Your task to perform on an android device: Open Google Chrome and open the bookmarks view Image 0: 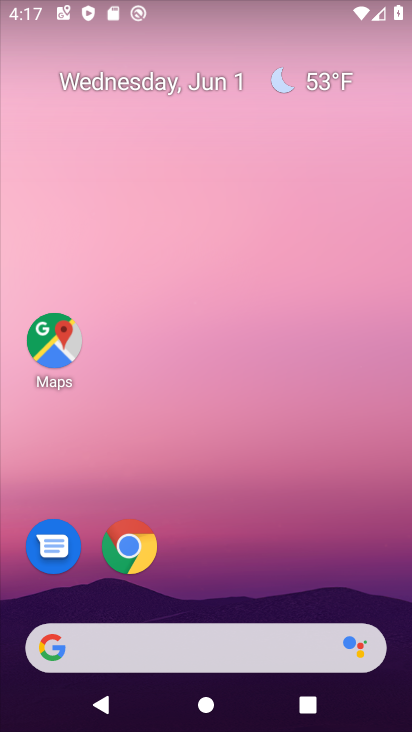
Step 0: click (125, 548)
Your task to perform on an android device: Open Google Chrome and open the bookmarks view Image 1: 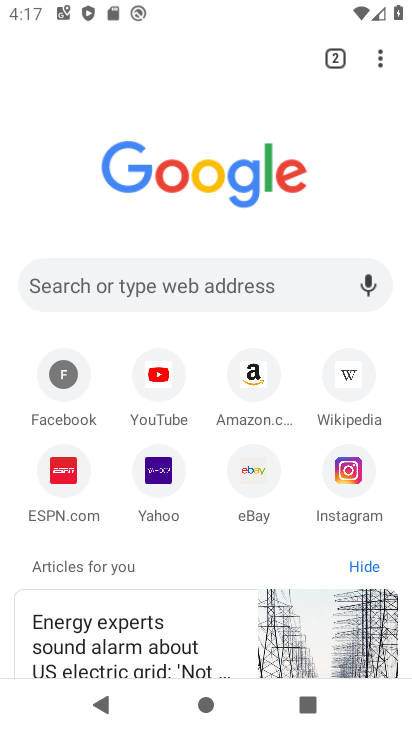
Step 1: click (379, 58)
Your task to perform on an android device: Open Google Chrome and open the bookmarks view Image 2: 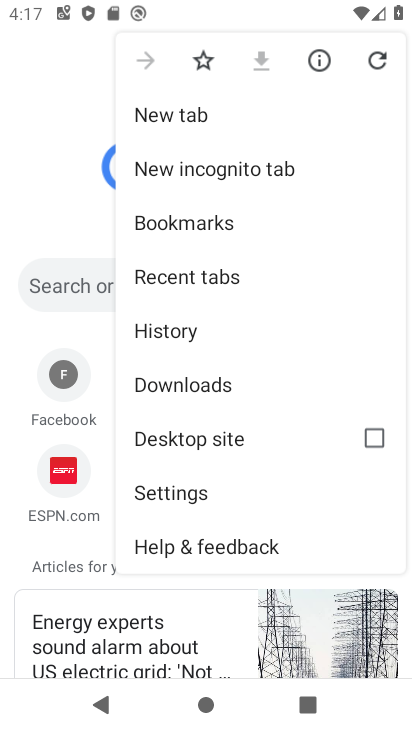
Step 2: click (192, 216)
Your task to perform on an android device: Open Google Chrome and open the bookmarks view Image 3: 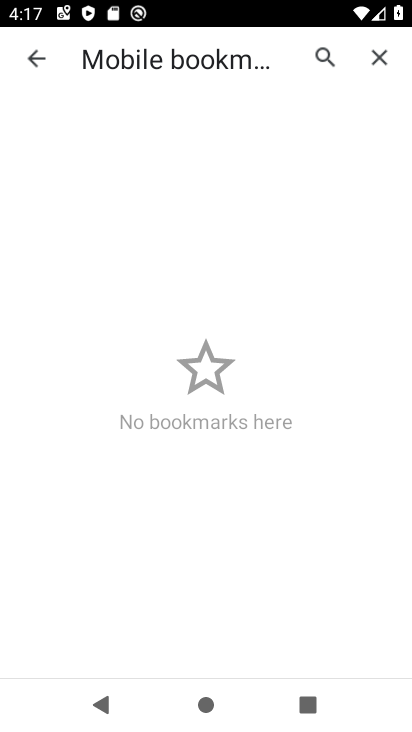
Step 3: task complete